Your task to perform on an android device: Is it going to rain this weekend? Image 0: 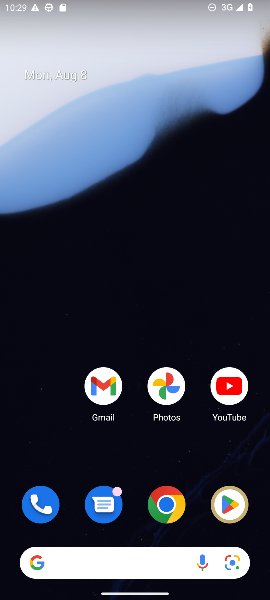
Step 0: click (42, 558)
Your task to perform on an android device: Is it going to rain this weekend? Image 1: 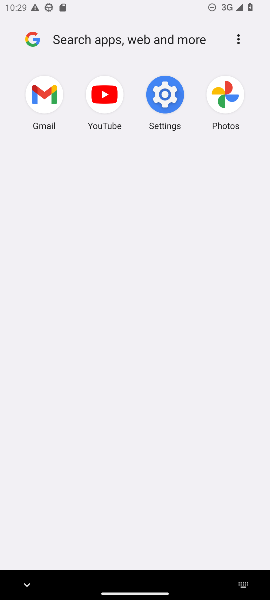
Step 1: click (32, 34)
Your task to perform on an android device: Is it going to rain this weekend? Image 2: 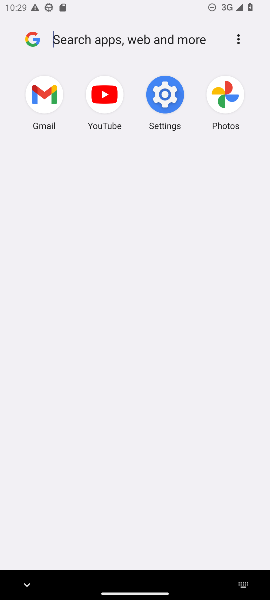
Step 2: type "google"
Your task to perform on an android device: Is it going to rain this weekend? Image 3: 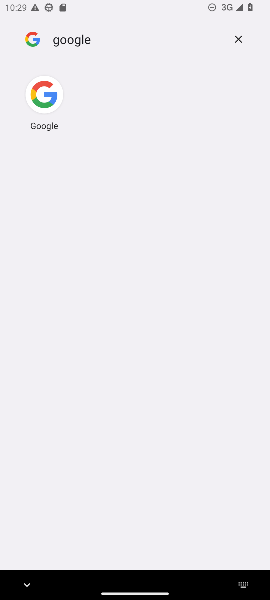
Step 3: click (46, 99)
Your task to perform on an android device: Is it going to rain this weekend? Image 4: 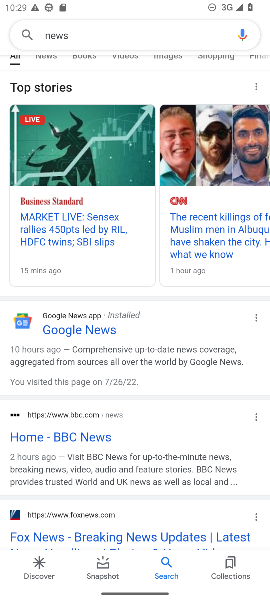
Step 4: click (109, 32)
Your task to perform on an android device: Is it going to rain this weekend? Image 5: 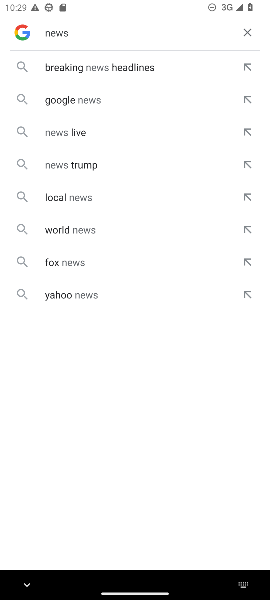
Step 5: click (252, 28)
Your task to perform on an android device: Is it going to rain this weekend? Image 6: 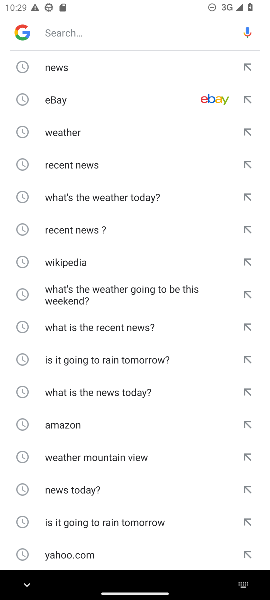
Step 6: type "weather"
Your task to perform on an android device: Is it going to rain this weekend? Image 7: 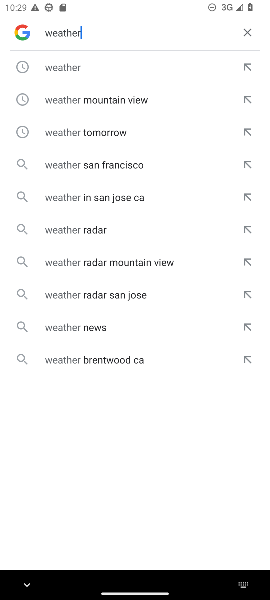
Step 7: click (65, 73)
Your task to perform on an android device: Is it going to rain this weekend? Image 8: 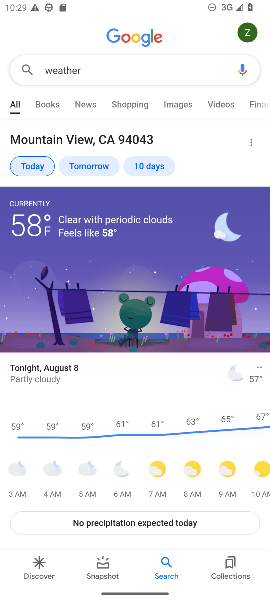
Step 8: click (84, 162)
Your task to perform on an android device: Is it going to rain this weekend? Image 9: 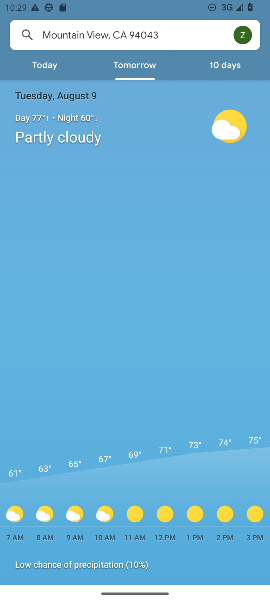
Step 9: click (226, 68)
Your task to perform on an android device: Is it going to rain this weekend? Image 10: 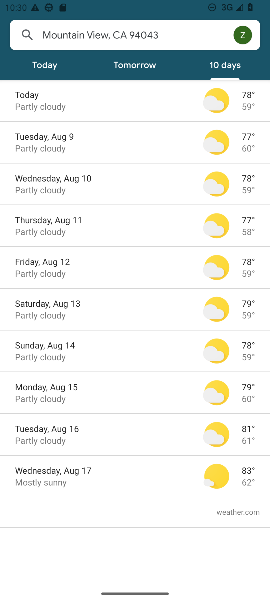
Step 10: task complete